Your task to perform on an android device: Go to location settings Image 0: 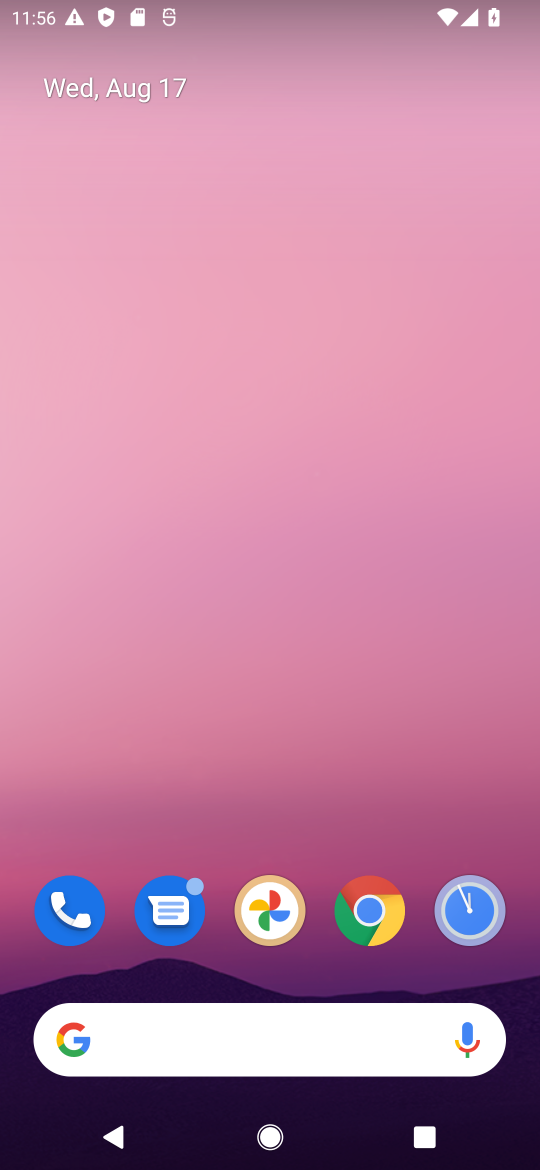
Step 0: drag from (269, 891) to (364, 72)
Your task to perform on an android device: Go to location settings Image 1: 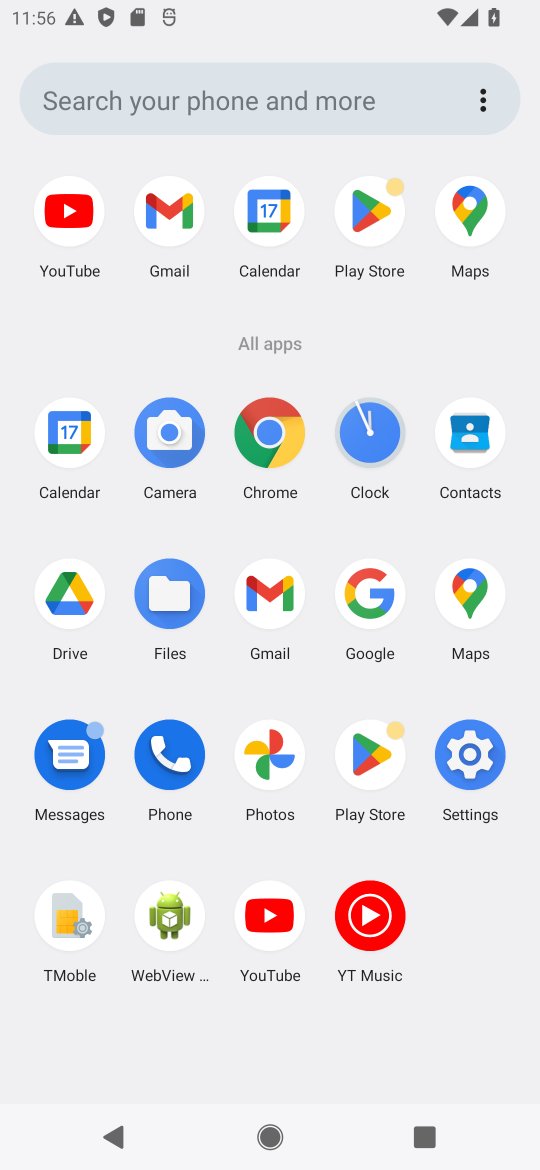
Step 1: click (469, 736)
Your task to perform on an android device: Go to location settings Image 2: 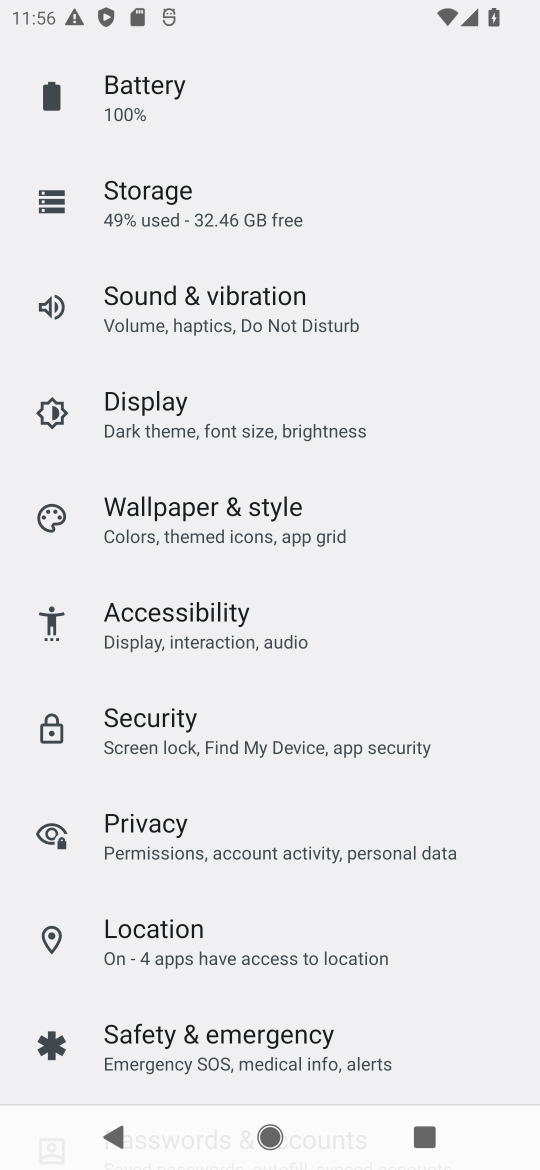
Step 2: click (178, 912)
Your task to perform on an android device: Go to location settings Image 3: 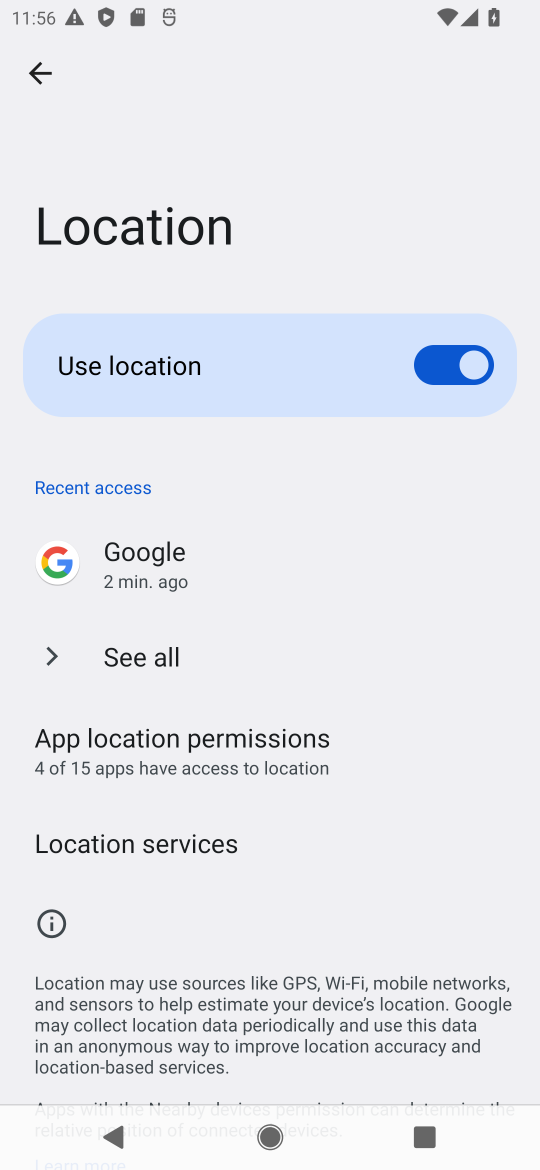
Step 3: task complete